Your task to perform on an android device: choose inbox layout in the gmail app Image 0: 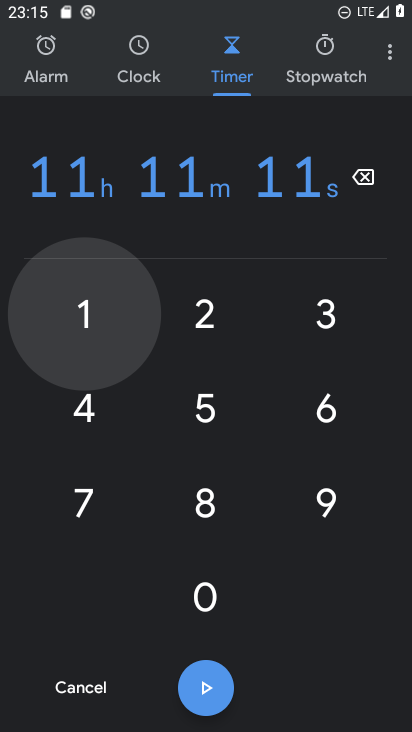
Step 0: press home button
Your task to perform on an android device: choose inbox layout in the gmail app Image 1: 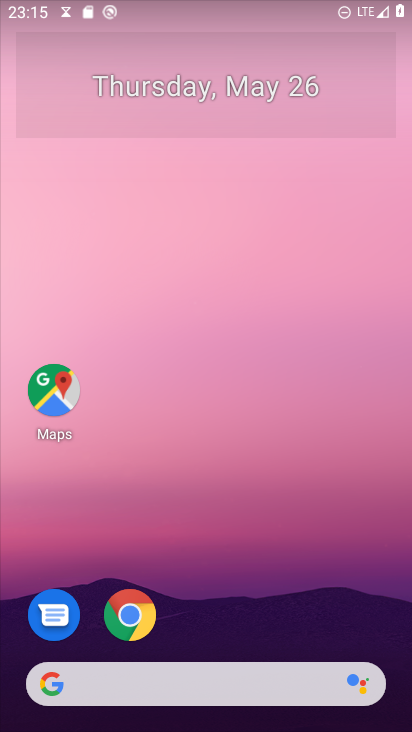
Step 1: drag from (193, 591) to (213, 250)
Your task to perform on an android device: choose inbox layout in the gmail app Image 2: 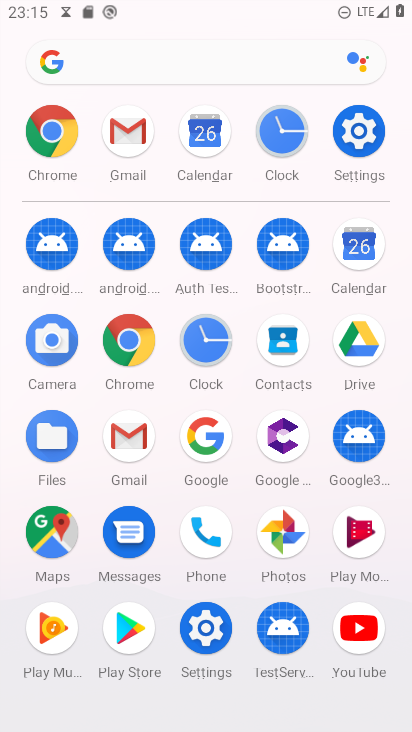
Step 2: click (135, 435)
Your task to perform on an android device: choose inbox layout in the gmail app Image 3: 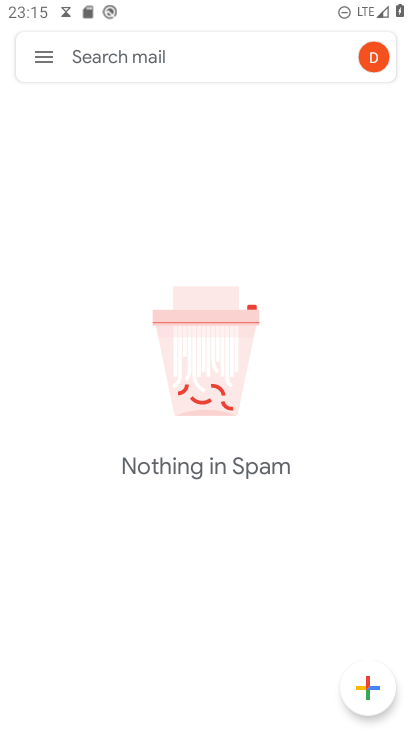
Step 3: click (41, 54)
Your task to perform on an android device: choose inbox layout in the gmail app Image 4: 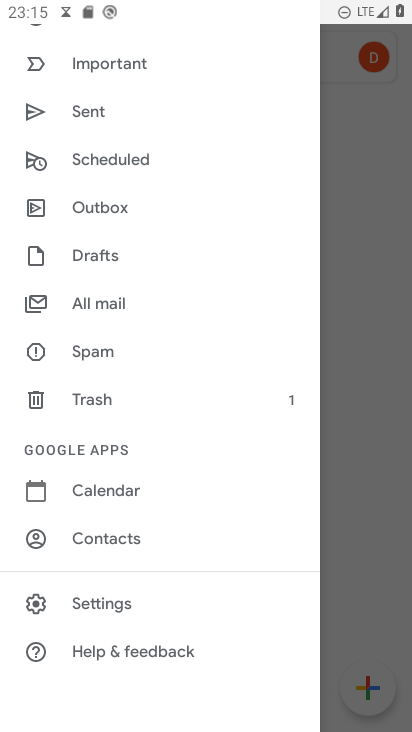
Step 4: drag from (156, 163) to (156, 577)
Your task to perform on an android device: choose inbox layout in the gmail app Image 5: 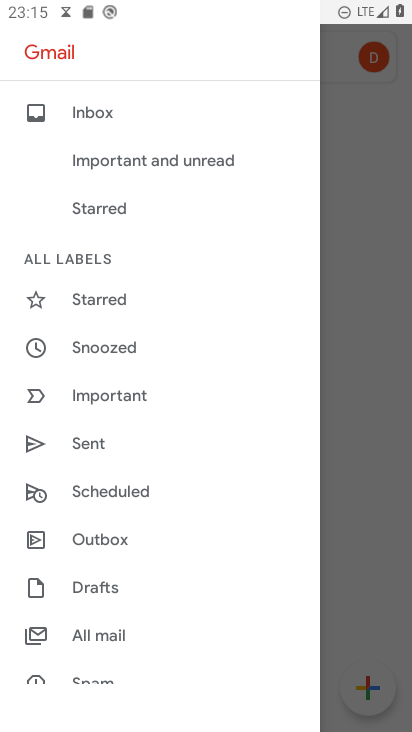
Step 5: drag from (125, 688) to (184, 210)
Your task to perform on an android device: choose inbox layout in the gmail app Image 6: 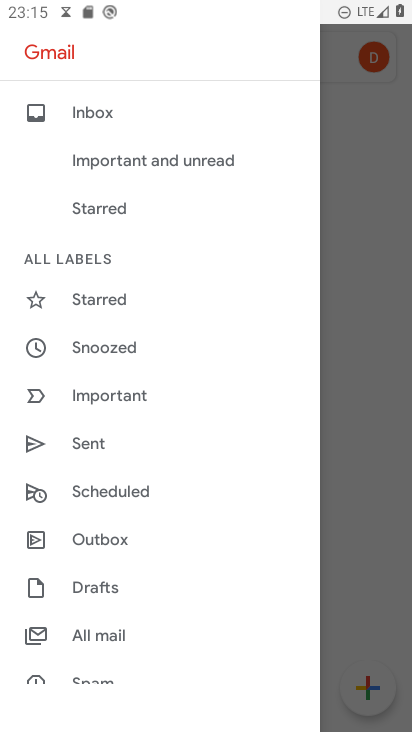
Step 6: drag from (128, 609) to (188, 157)
Your task to perform on an android device: choose inbox layout in the gmail app Image 7: 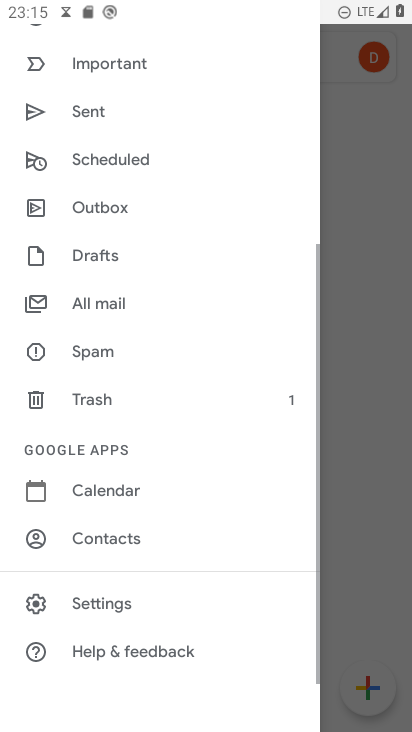
Step 7: click (93, 604)
Your task to perform on an android device: choose inbox layout in the gmail app Image 8: 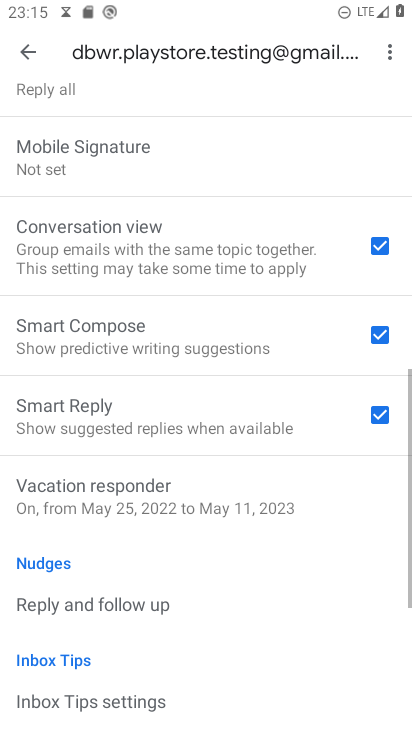
Step 8: drag from (166, 126) to (140, 672)
Your task to perform on an android device: choose inbox layout in the gmail app Image 9: 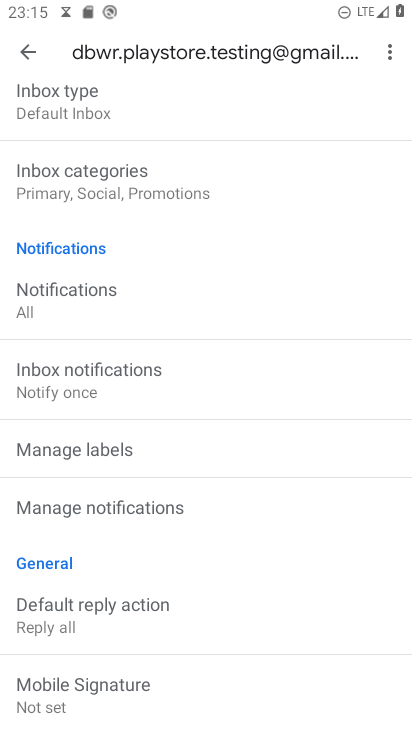
Step 9: click (85, 372)
Your task to perform on an android device: choose inbox layout in the gmail app Image 10: 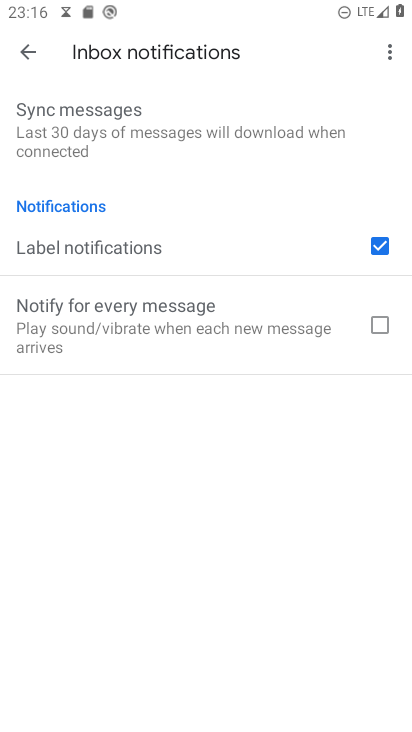
Step 10: click (23, 46)
Your task to perform on an android device: choose inbox layout in the gmail app Image 11: 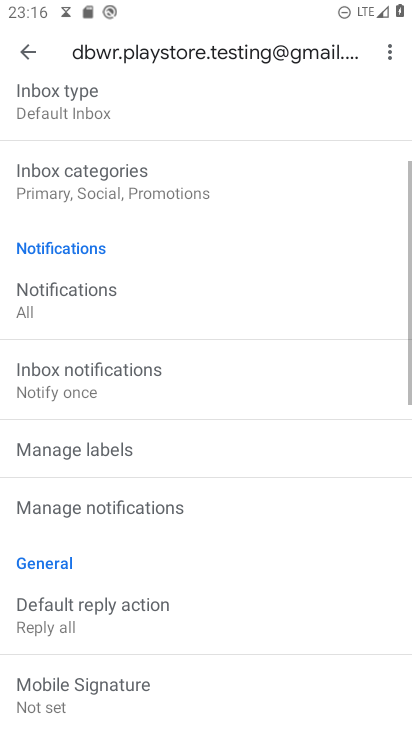
Step 11: drag from (167, 181) to (174, 418)
Your task to perform on an android device: choose inbox layout in the gmail app Image 12: 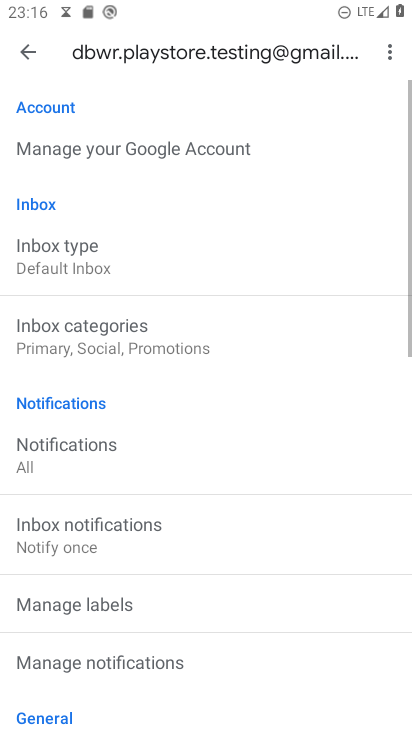
Step 12: click (86, 264)
Your task to perform on an android device: choose inbox layout in the gmail app Image 13: 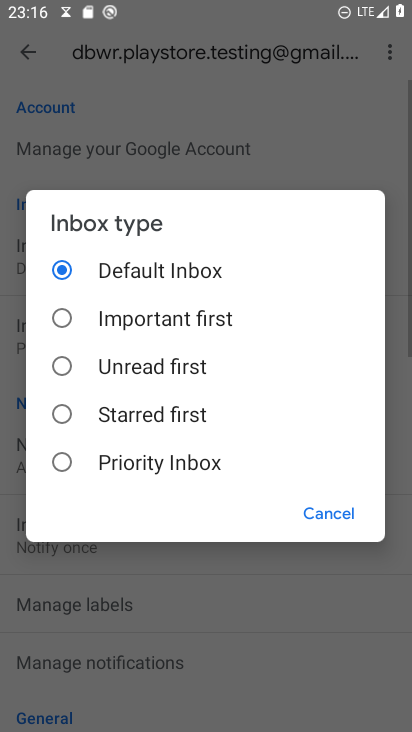
Step 13: click (134, 382)
Your task to perform on an android device: choose inbox layout in the gmail app Image 14: 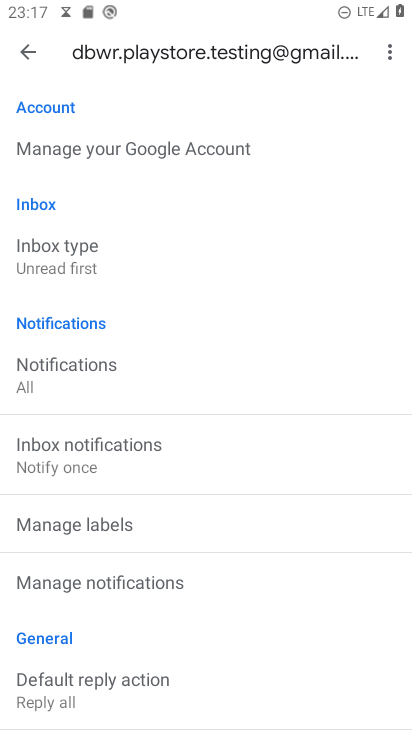
Step 14: task complete